Your task to perform on an android device: Is it going to rain today? Image 0: 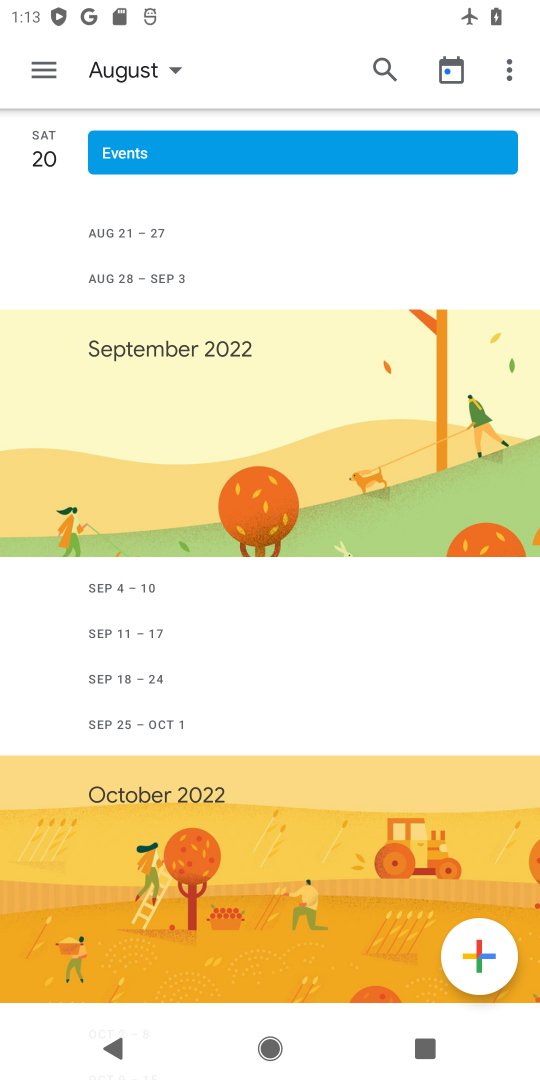
Step 0: press home button
Your task to perform on an android device: Is it going to rain today? Image 1: 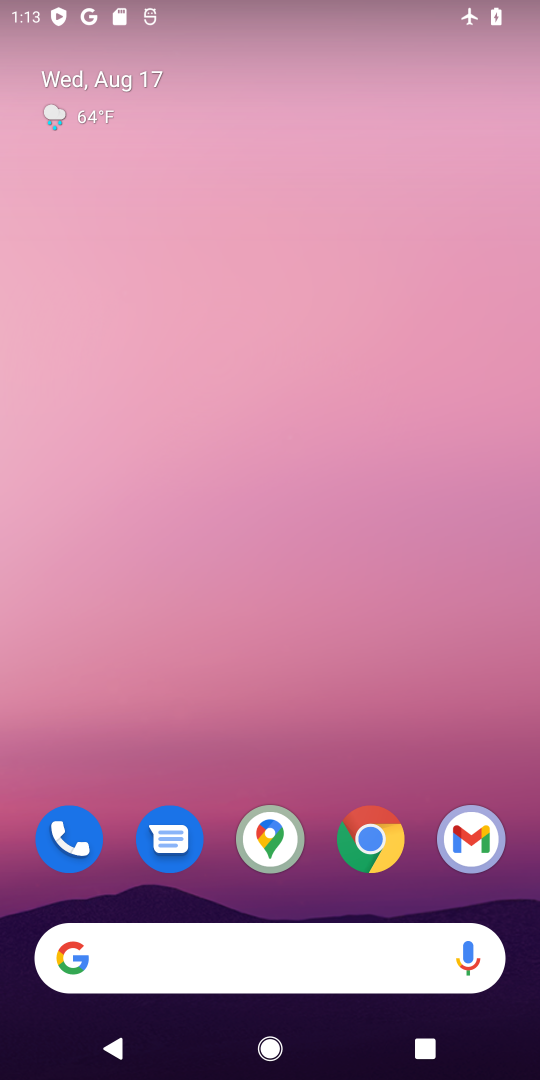
Step 1: drag from (291, 923) to (241, 260)
Your task to perform on an android device: Is it going to rain today? Image 2: 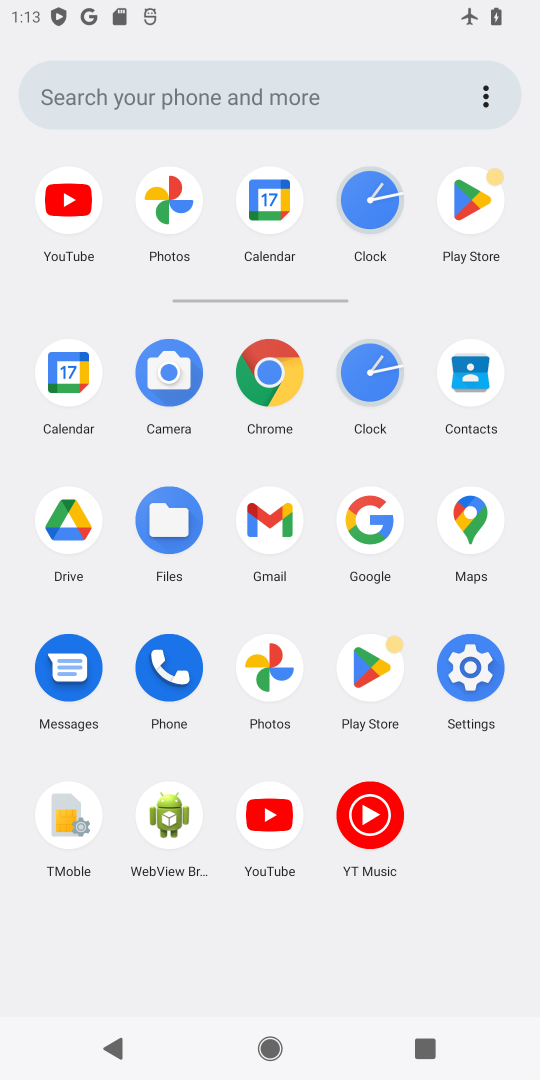
Step 2: click (370, 519)
Your task to perform on an android device: Is it going to rain today? Image 3: 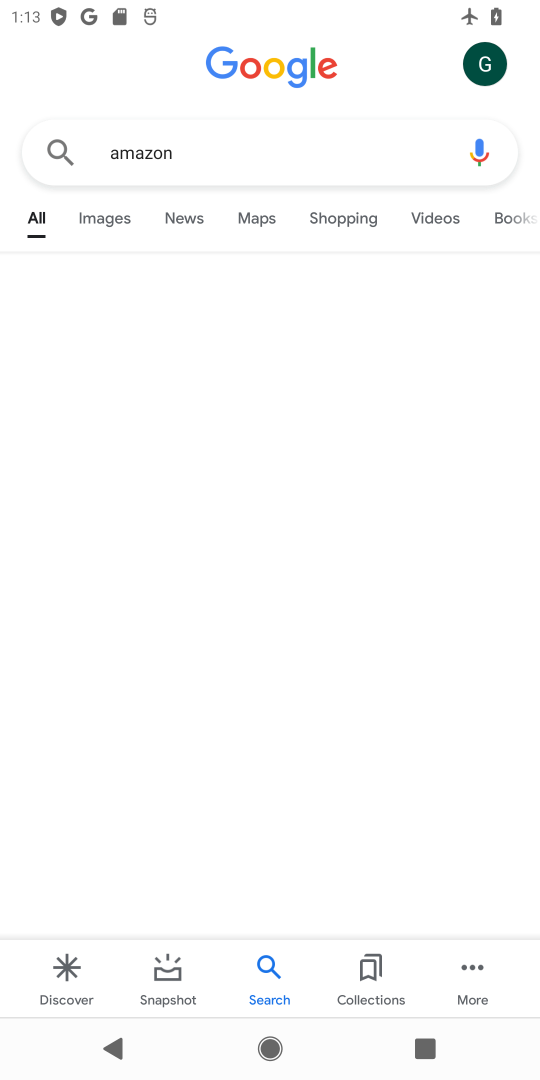
Step 3: click (373, 158)
Your task to perform on an android device: Is it going to rain today? Image 4: 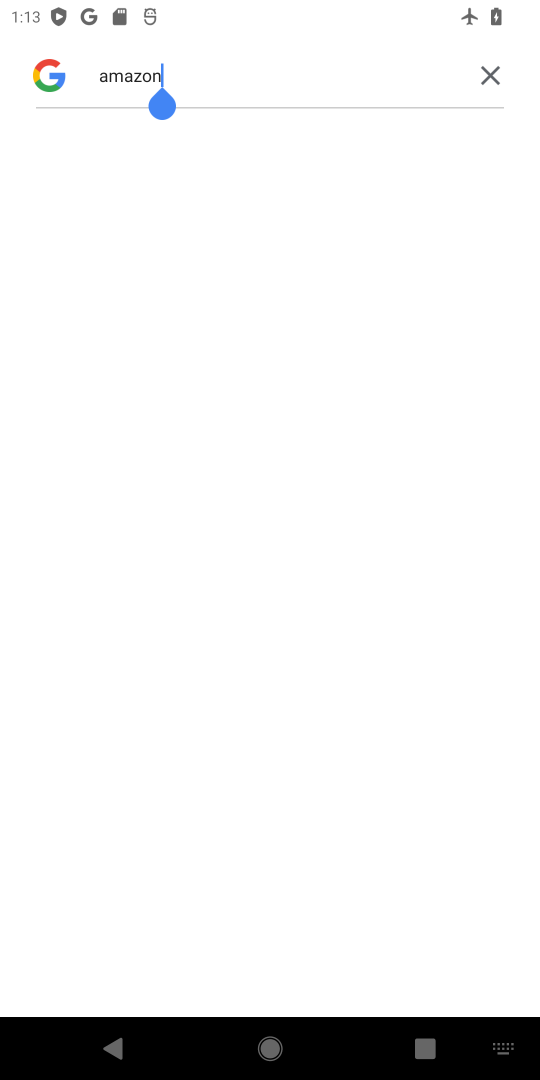
Step 4: click (487, 76)
Your task to perform on an android device: Is it going to rain today? Image 5: 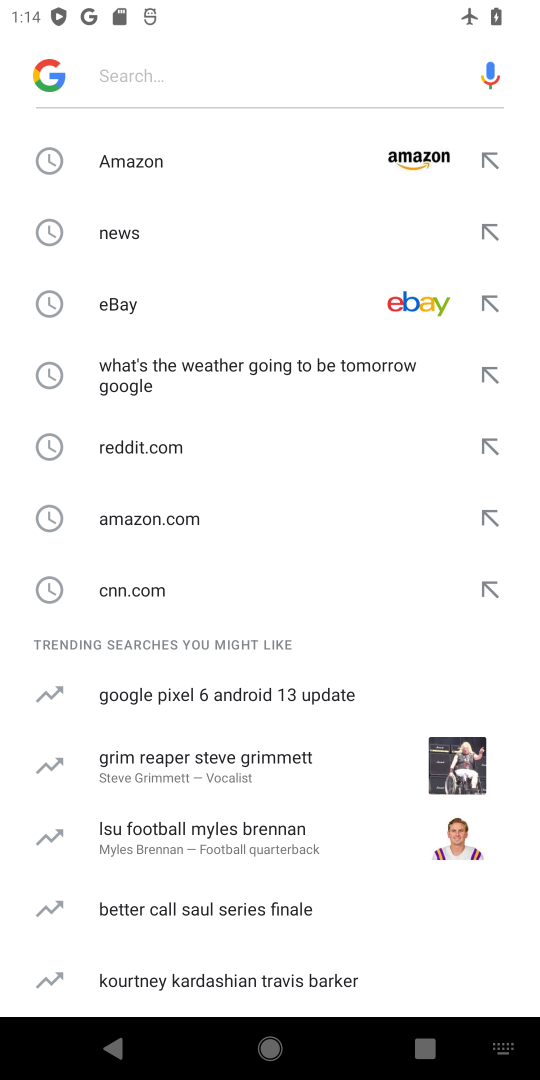
Step 5: type "Is it going to rain today?"
Your task to perform on an android device: Is it going to rain today? Image 6: 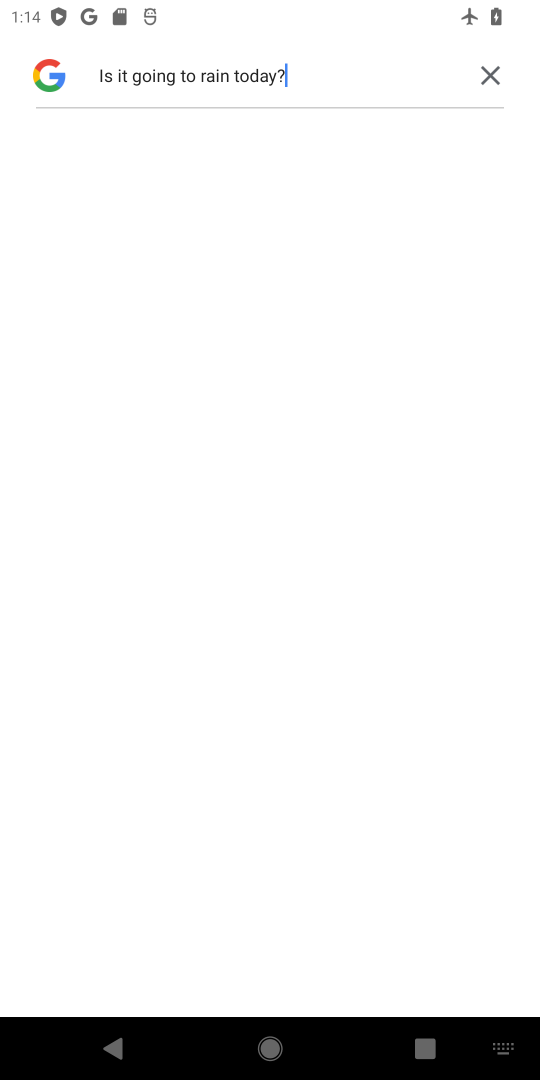
Step 6: task complete